Your task to perform on an android device: turn notification dots on Image 0: 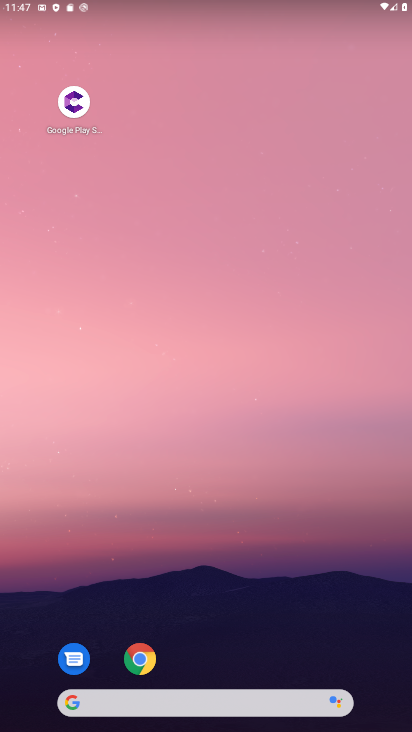
Step 0: drag from (211, 658) to (224, 172)
Your task to perform on an android device: turn notification dots on Image 1: 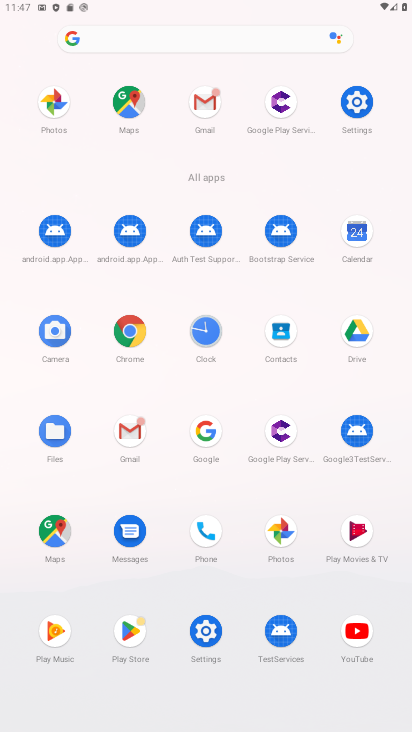
Step 1: click (362, 105)
Your task to perform on an android device: turn notification dots on Image 2: 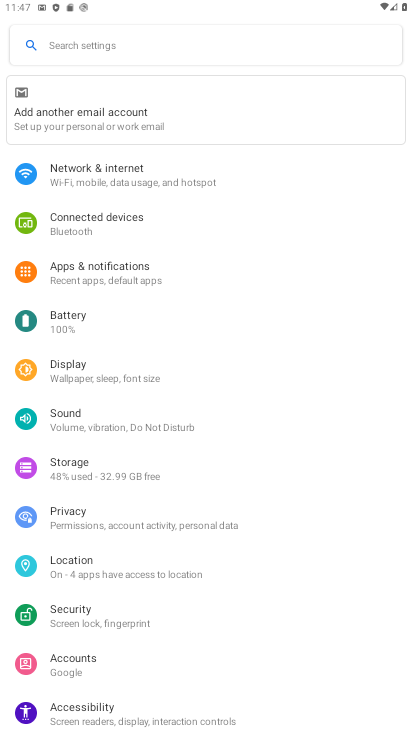
Step 2: click (169, 268)
Your task to perform on an android device: turn notification dots on Image 3: 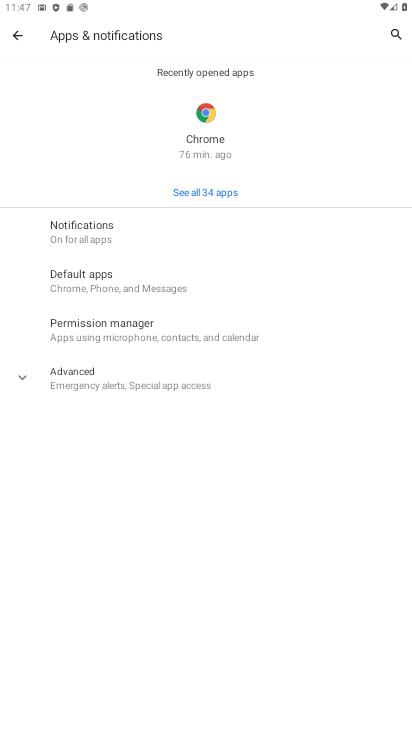
Step 3: click (133, 235)
Your task to perform on an android device: turn notification dots on Image 4: 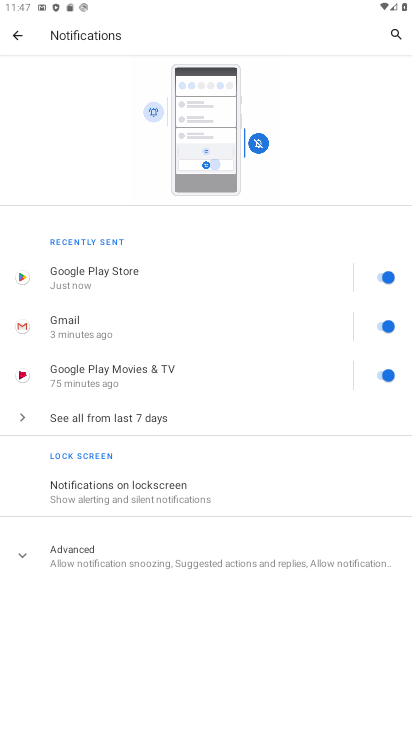
Step 4: click (72, 556)
Your task to perform on an android device: turn notification dots on Image 5: 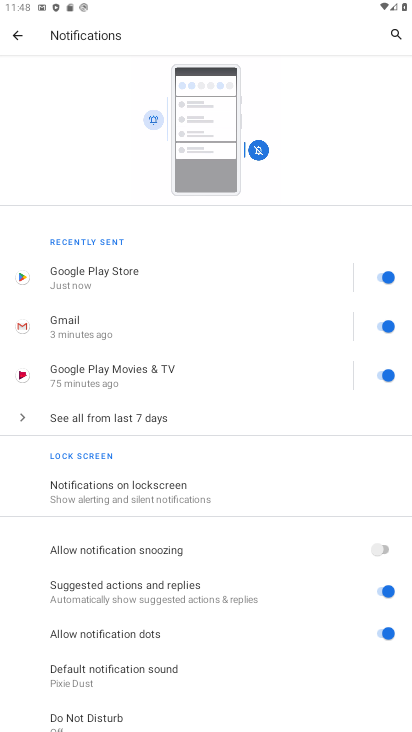
Step 5: task complete